Your task to perform on an android device: Go to notification settings Image 0: 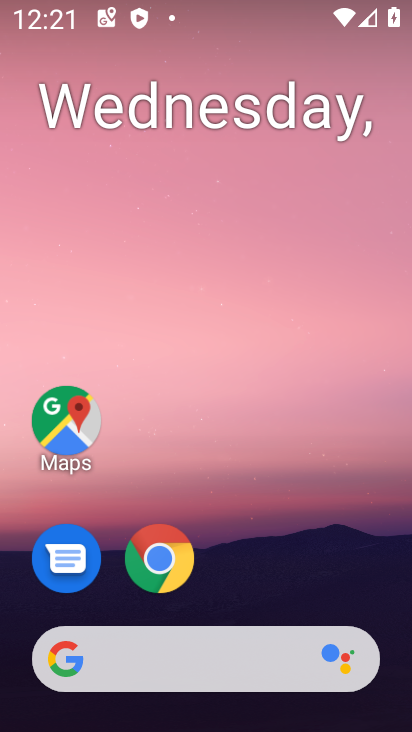
Step 0: drag from (346, 499) to (308, 44)
Your task to perform on an android device: Go to notification settings Image 1: 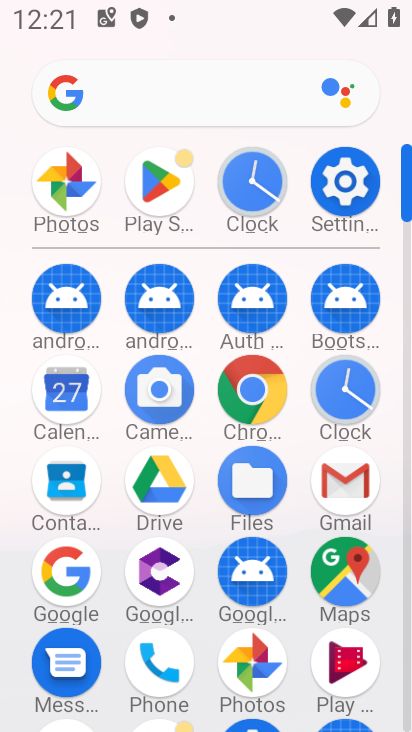
Step 1: click (330, 199)
Your task to perform on an android device: Go to notification settings Image 2: 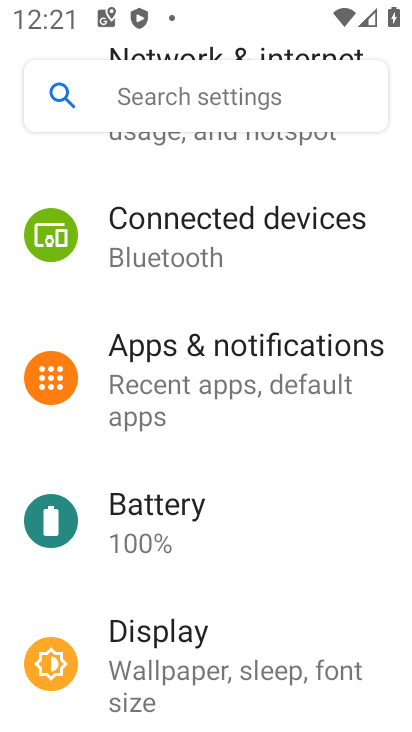
Step 2: click (217, 375)
Your task to perform on an android device: Go to notification settings Image 3: 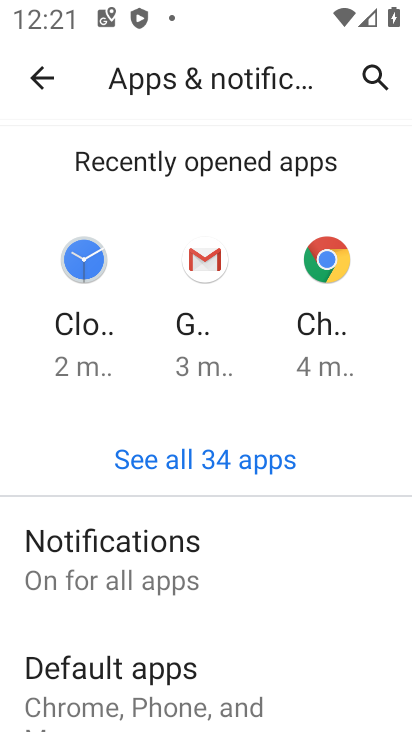
Step 3: click (127, 565)
Your task to perform on an android device: Go to notification settings Image 4: 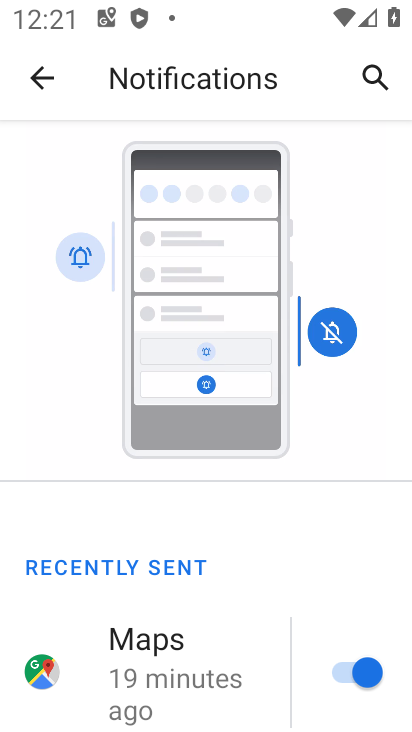
Step 4: task complete